Your task to perform on an android device: open app "LiveIn - Share Your Moment" (install if not already installed) Image 0: 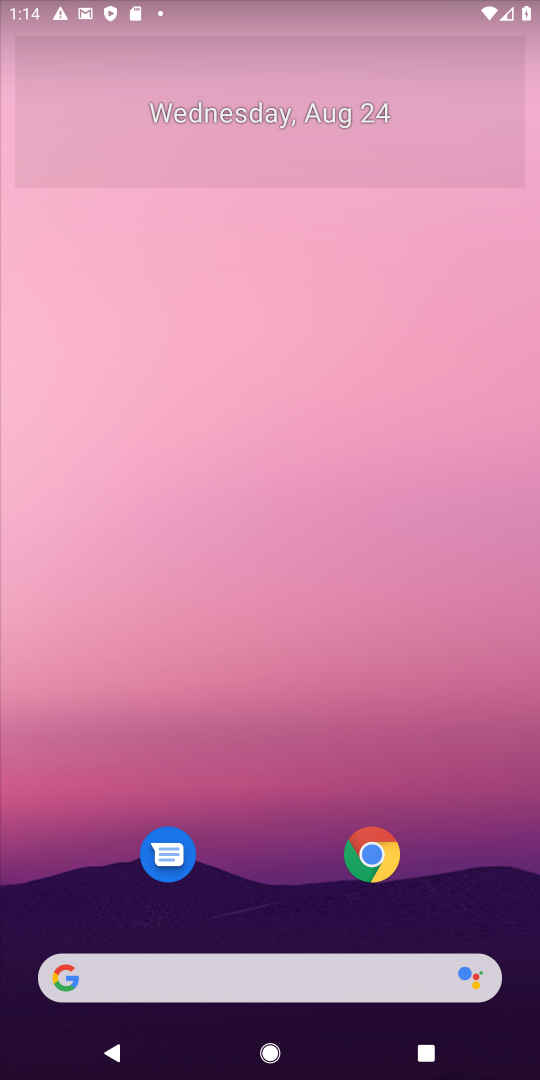
Step 0: drag from (475, 839) to (435, 127)
Your task to perform on an android device: open app "LiveIn - Share Your Moment" (install if not already installed) Image 1: 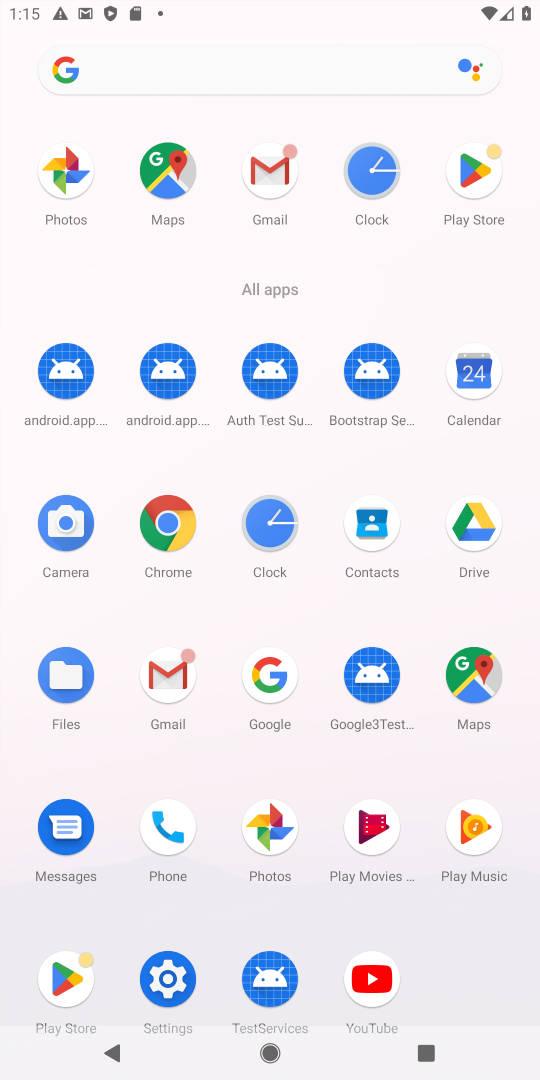
Step 1: click (470, 177)
Your task to perform on an android device: open app "LiveIn - Share Your Moment" (install if not already installed) Image 2: 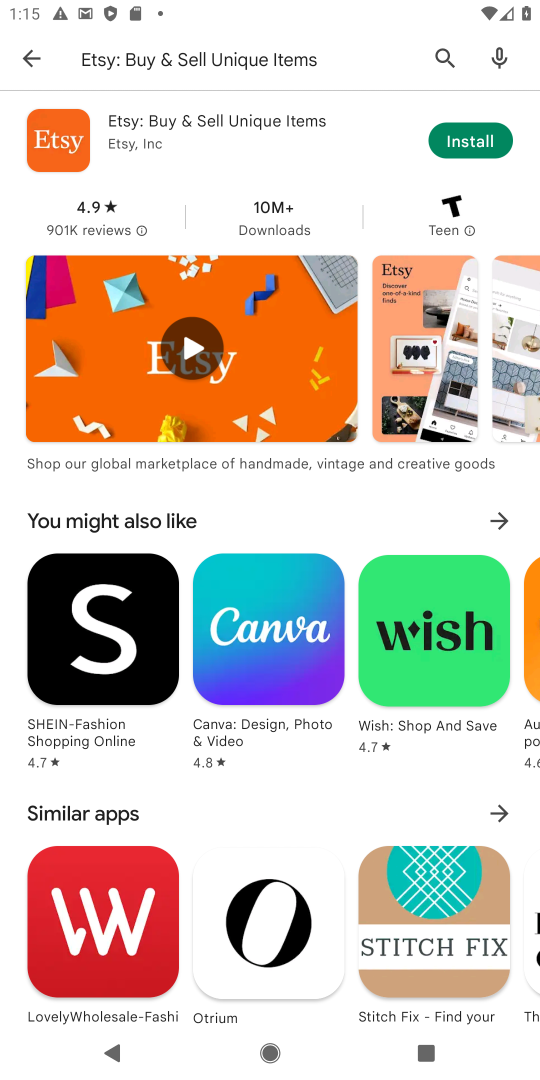
Step 2: press back button
Your task to perform on an android device: open app "LiveIn - Share Your Moment" (install if not already installed) Image 3: 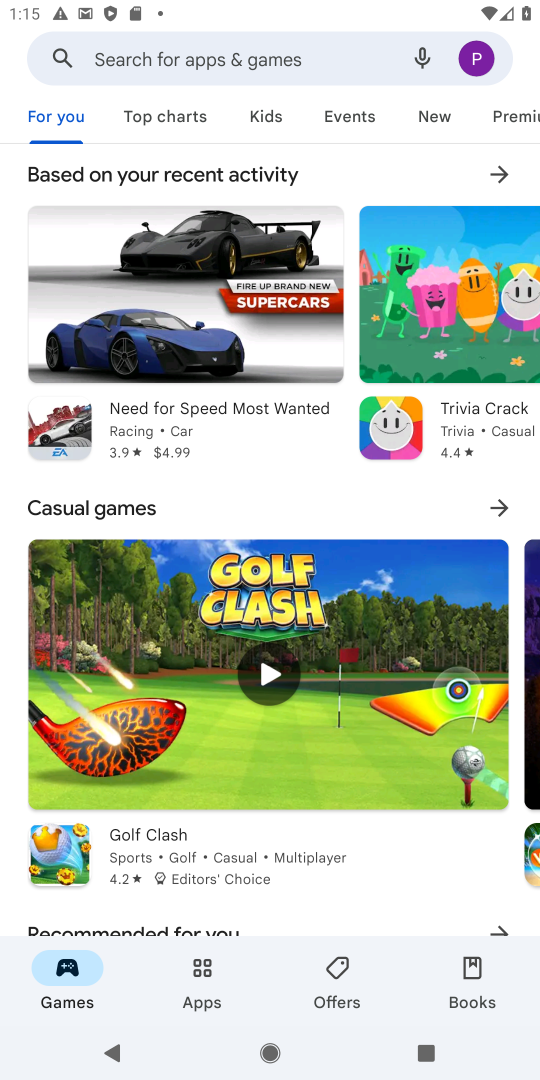
Step 3: click (296, 49)
Your task to perform on an android device: open app "LiveIn - Share Your Moment" (install if not already installed) Image 4: 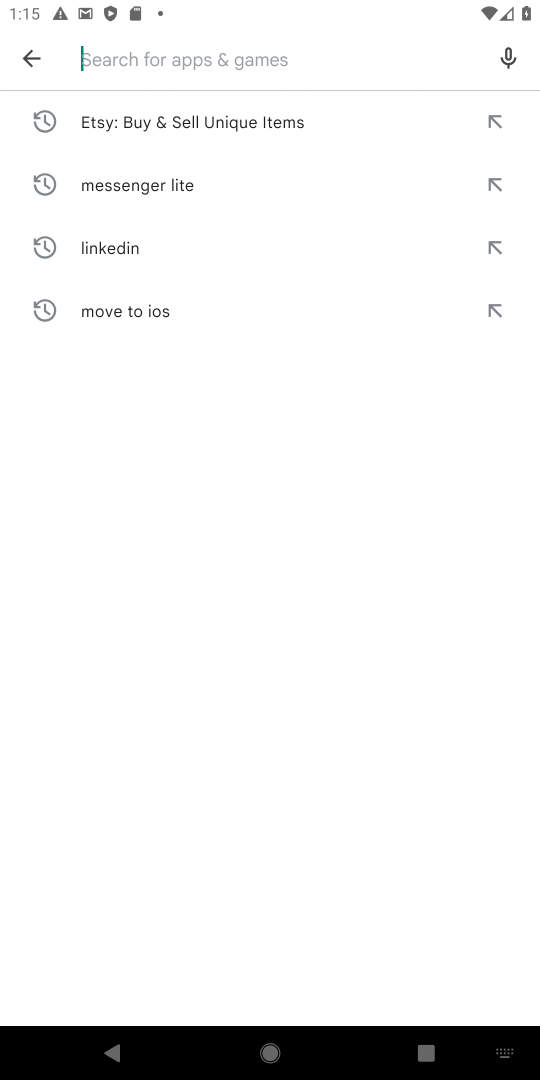
Step 4: type "LiveIn - Share Your Moment"
Your task to perform on an android device: open app "LiveIn - Share Your Moment" (install if not already installed) Image 5: 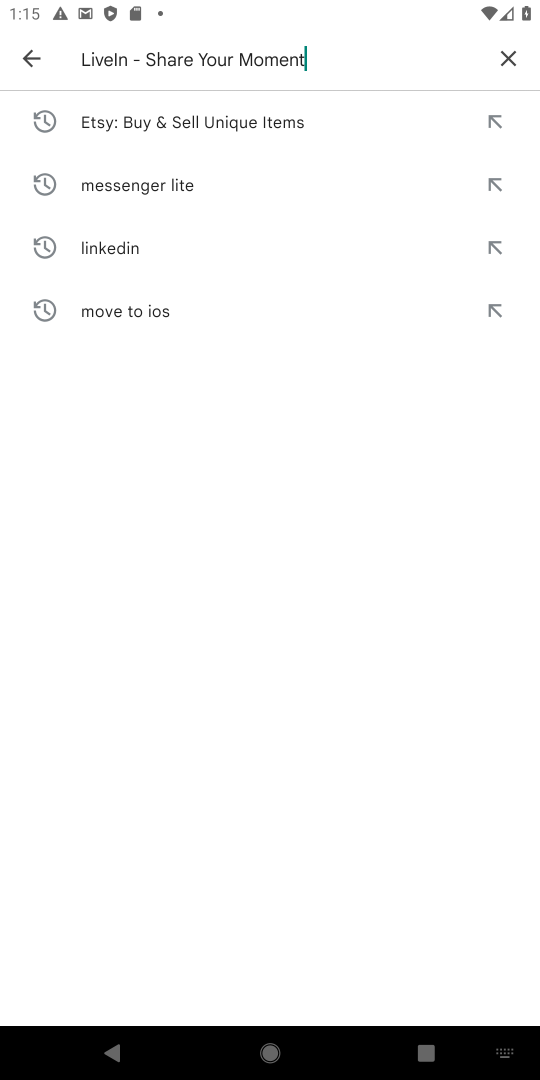
Step 5: press enter
Your task to perform on an android device: open app "LiveIn - Share Your Moment" (install if not already installed) Image 6: 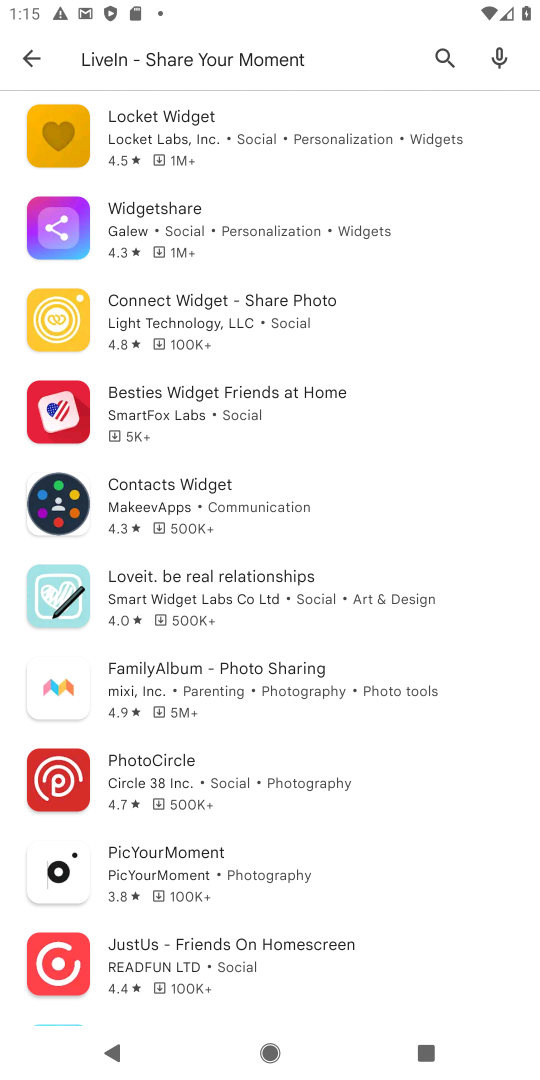
Step 6: task complete